Your task to perform on an android device: turn on airplane mode Image 0: 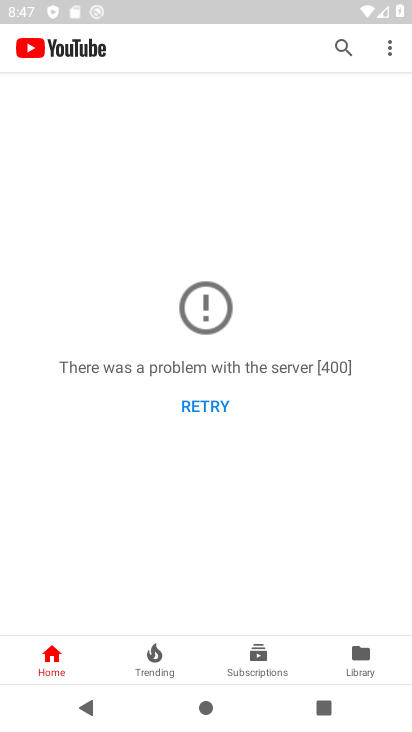
Step 0: press home button
Your task to perform on an android device: turn on airplane mode Image 1: 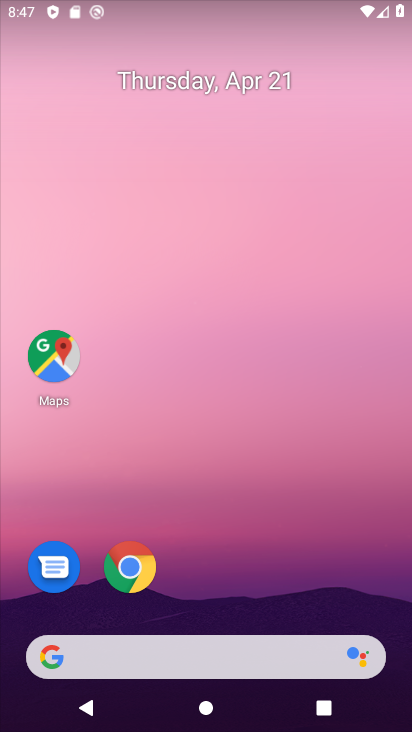
Step 1: drag from (365, 600) to (275, 141)
Your task to perform on an android device: turn on airplane mode Image 2: 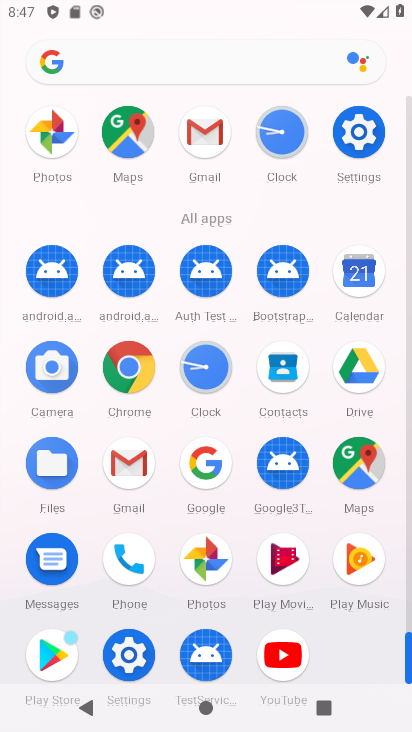
Step 2: click (130, 656)
Your task to perform on an android device: turn on airplane mode Image 3: 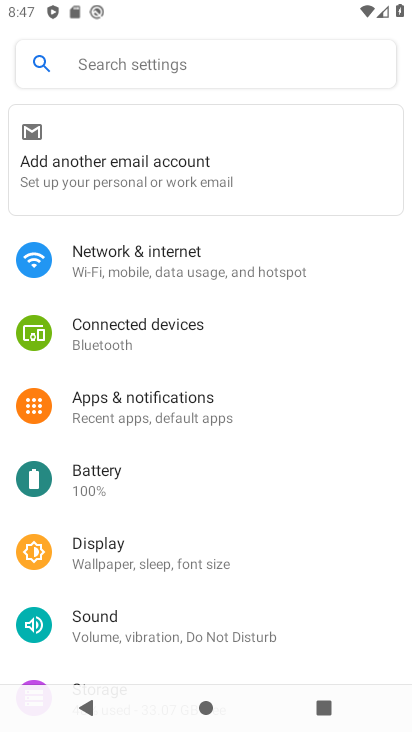
Step 3: click (136, 257)
Your task to perform on an android device: turn on airplane mode Image 4: 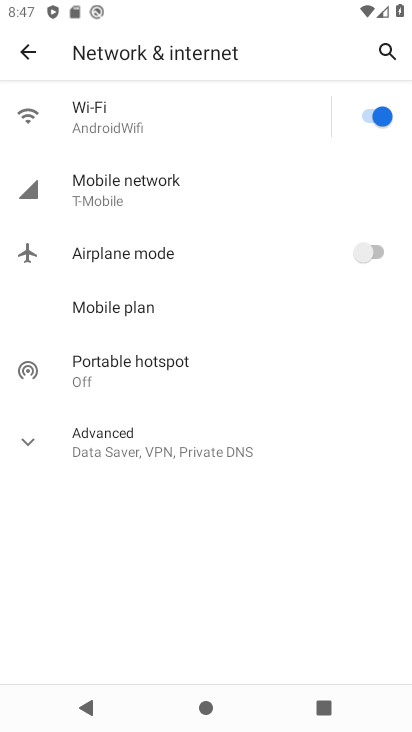
Step 4: click (377, 249)
Your task to perform on an android device: turn on airplane mode Image 5: 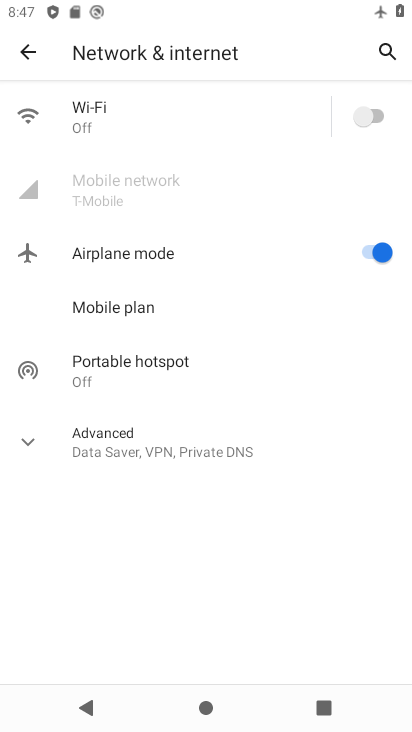
Step 5: task complete